Your task to perform on an android device: open app "Pinterest" (install if not already installed) and go to login screen Image 0: 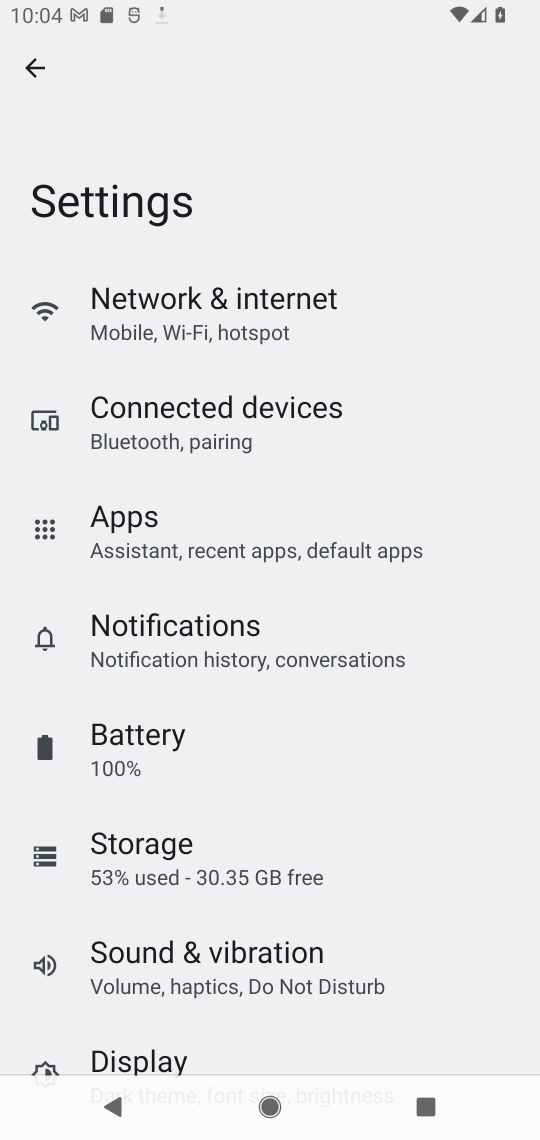
Step 0: press home button
Your task to perform on an android device: open app "Pinterest" (install if not already installed) and go to login screen Image 1: 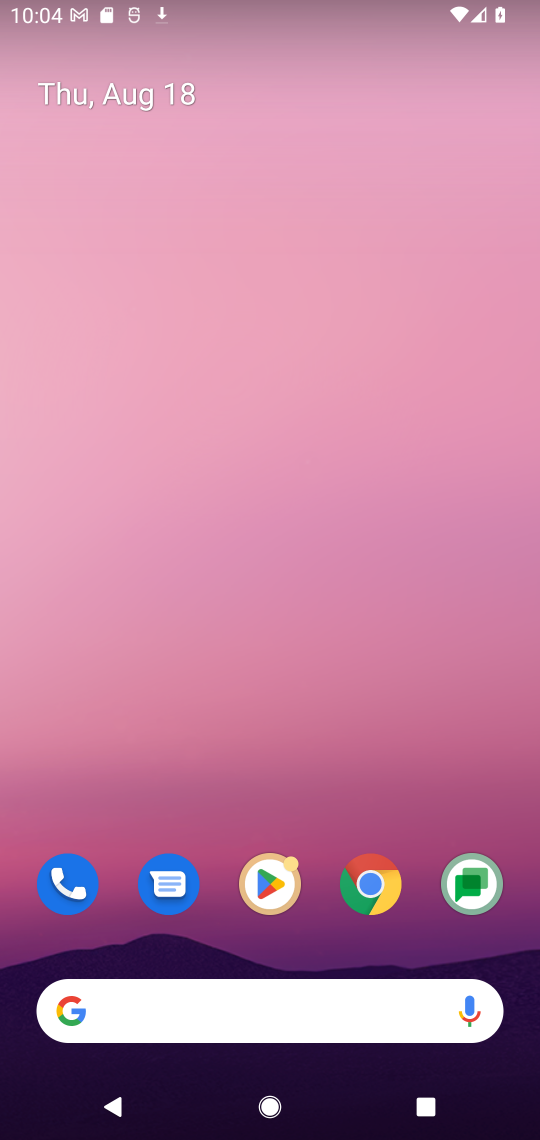
Step 1: click (275, 866)
Your task to perform on an android device: open app "Pinterest" (install if not already installed) and go to login screen Image 2: 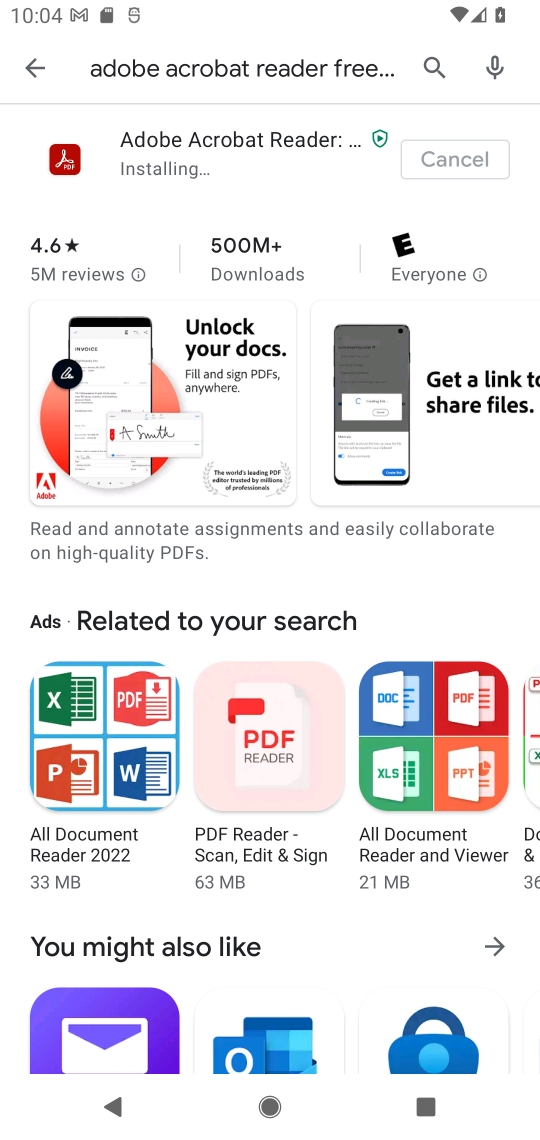
Step 2: click (408, 82)
Your task to perform on an android device: open app "Pinterest" (install if not already installed) and go to login screen Image 3: 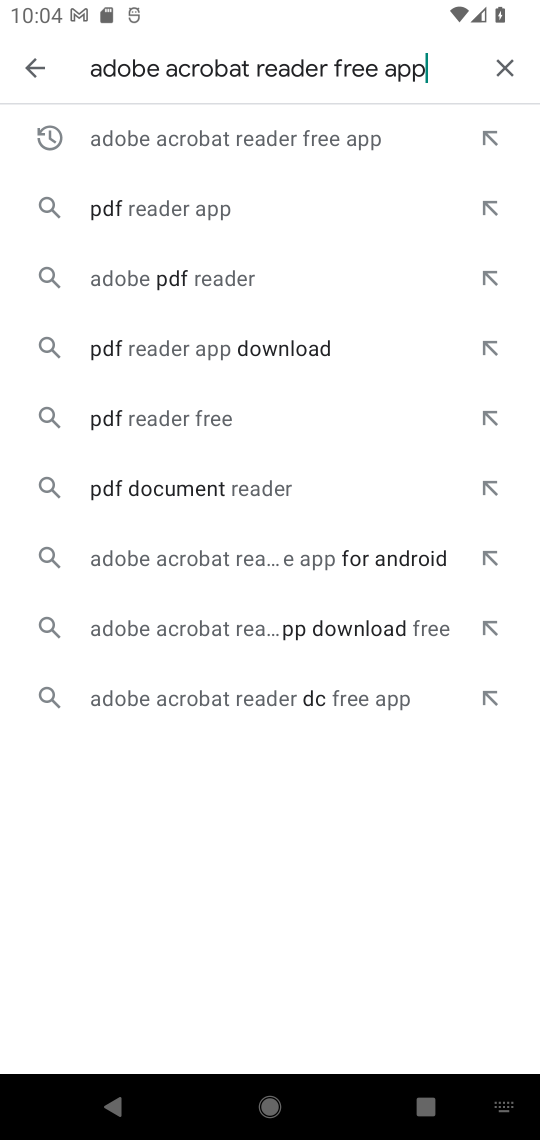
Step 3: click (514, 54)
Your task to perform on an android device: open app "Pinterest" (install if not already installed) and go to login screen Image 4: 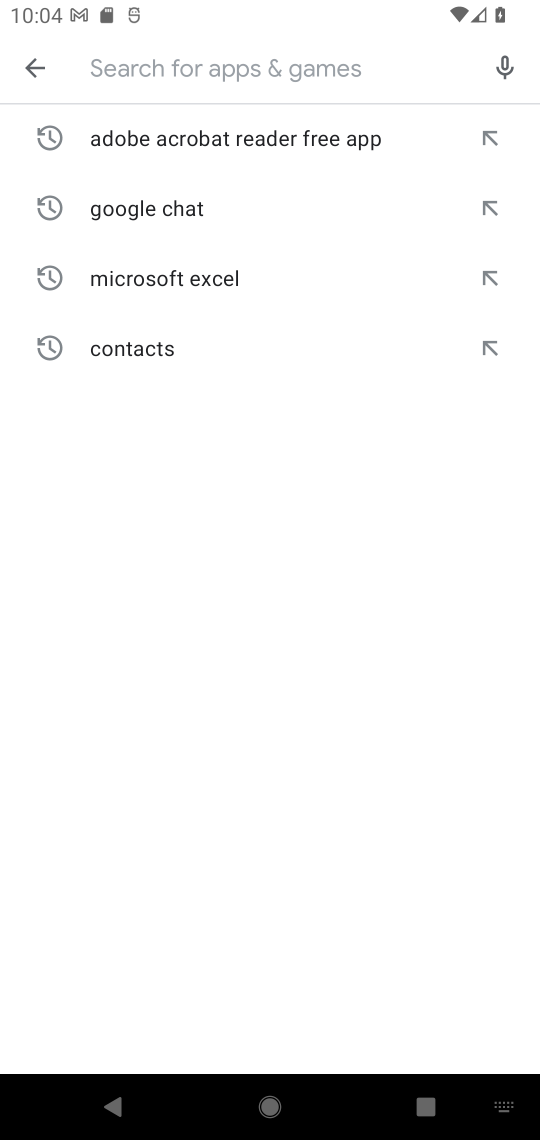
Step 4: type "pinterest"
Your task to perform on an android device: open app "Pinterest" (install if not already installed) and go to login screen Image 5: 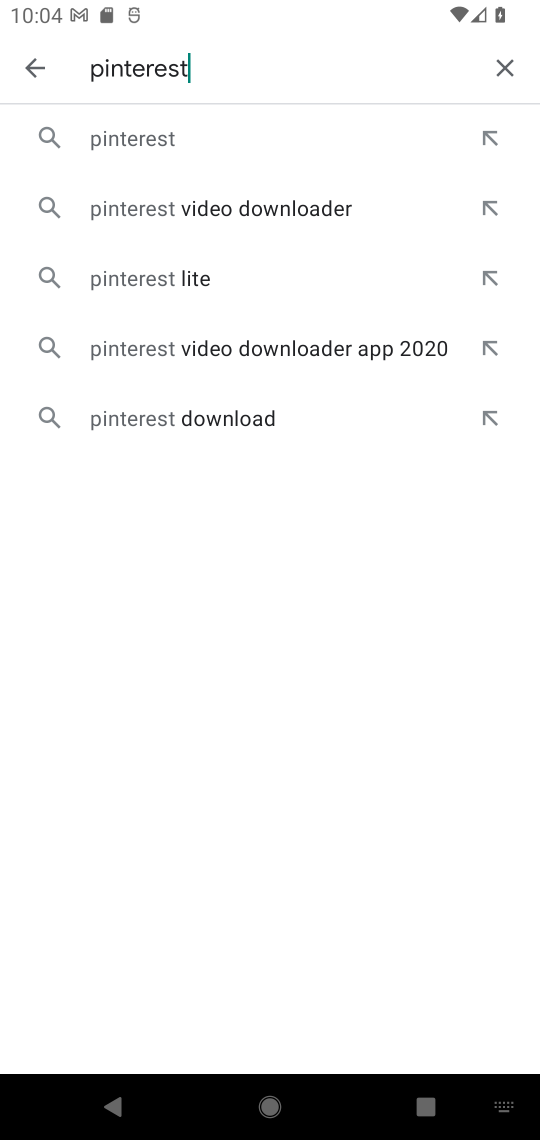
Step 5: click (277, 153)
Your task to perform on an android device: open app "Pinterest" (install if not already installed) and go to login screen Image 6: 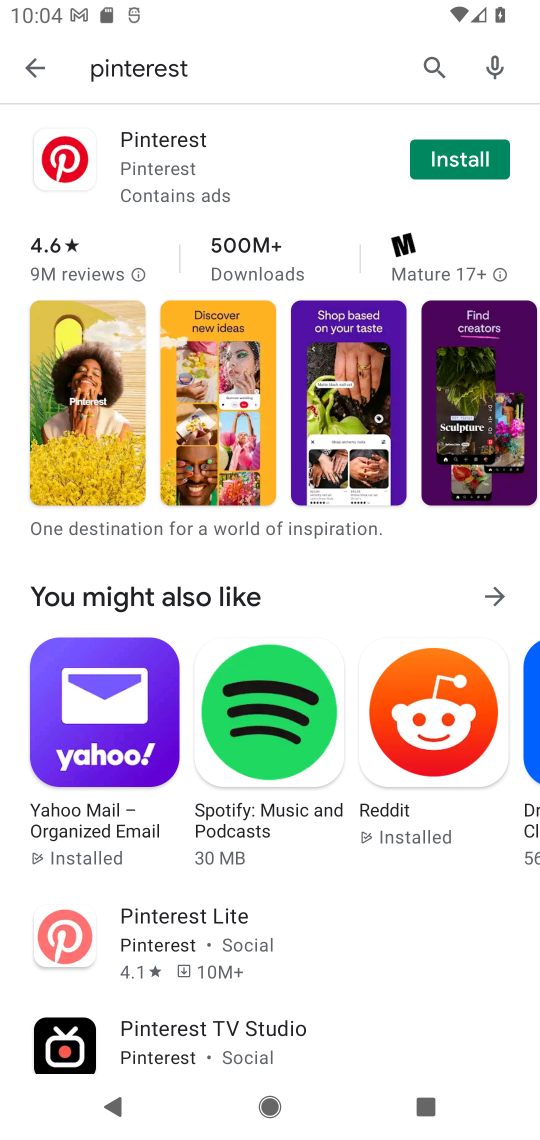
Step 6: click (467, 151)
Your task to perform on an android device: open app "Pinterest" (install if not already installed) and go to login screen Image 7: 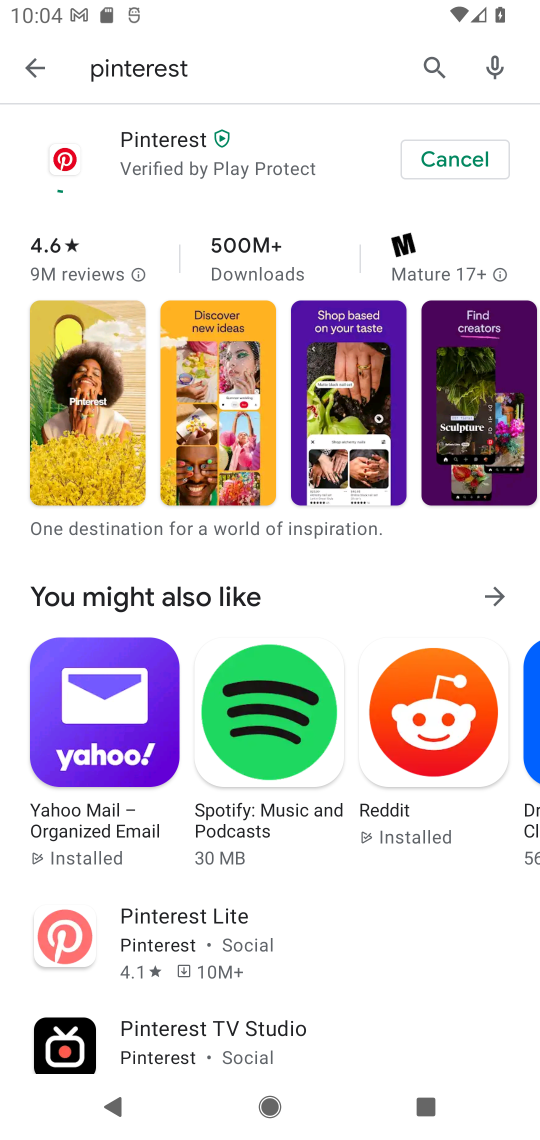
Step 7: task complete